Your task to perform on an android device: check battery use Image 0: 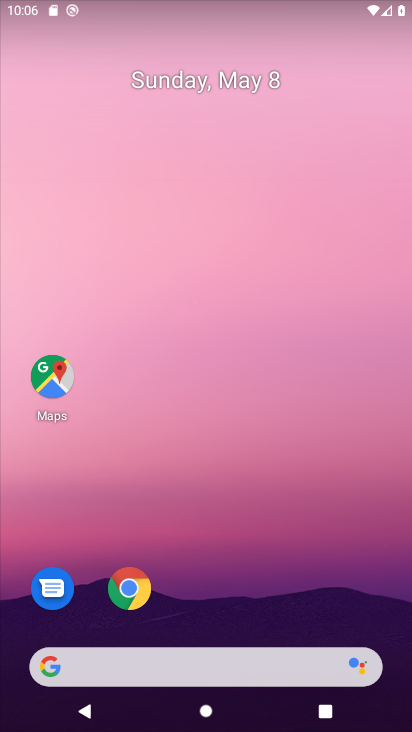
Step 0: drag from (186, 647) to (274, 349)
Your task to perform on an android device: check battery use Image 1: 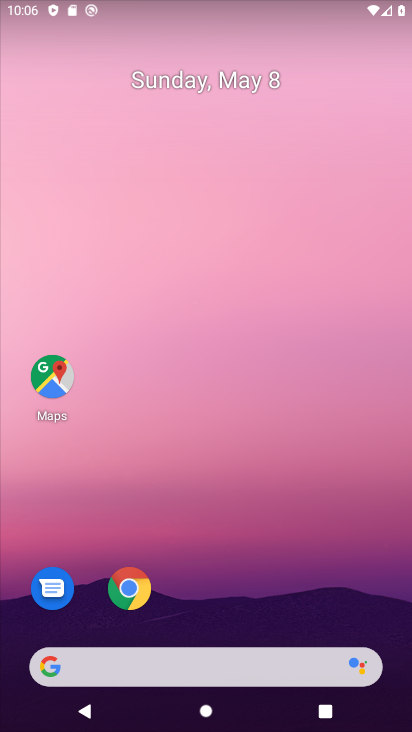
Step 1: drag from (217, 635) to (286, 275)
Your task to perform on an android device: check battery use Image 2: 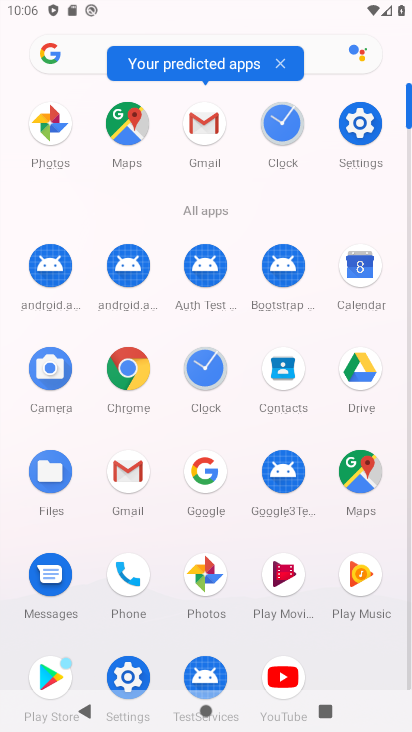
Step 2: click (124, 670)
Your task to perform on an android device: check battery use Image 3: 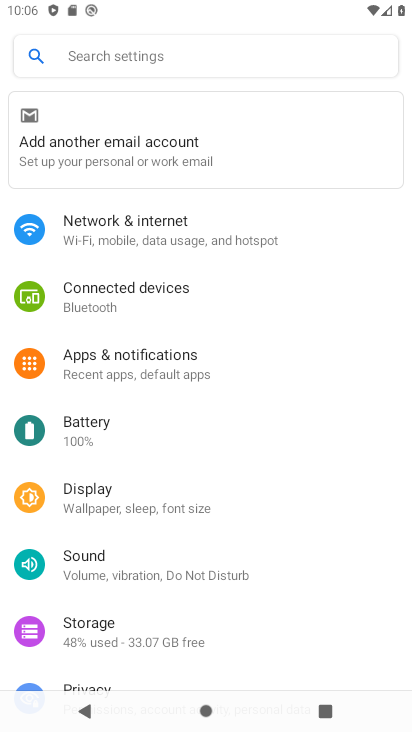
Step 3: click (204, 443)
Your task to perform on an android device: check battery use Image 4: 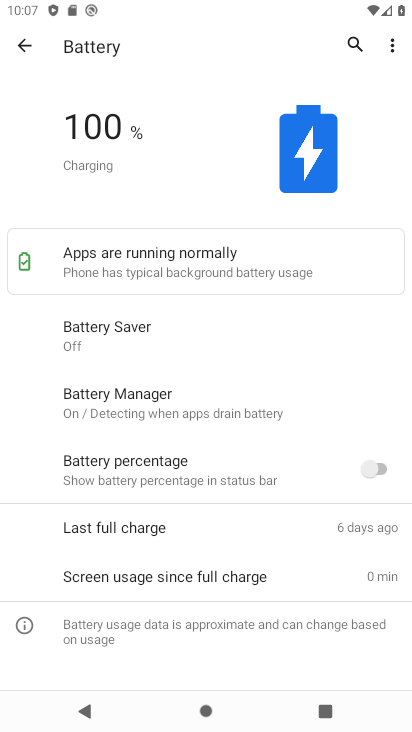
Step 4: click (391, 38)
Your task to perform on an android device: check battery use Image 5: 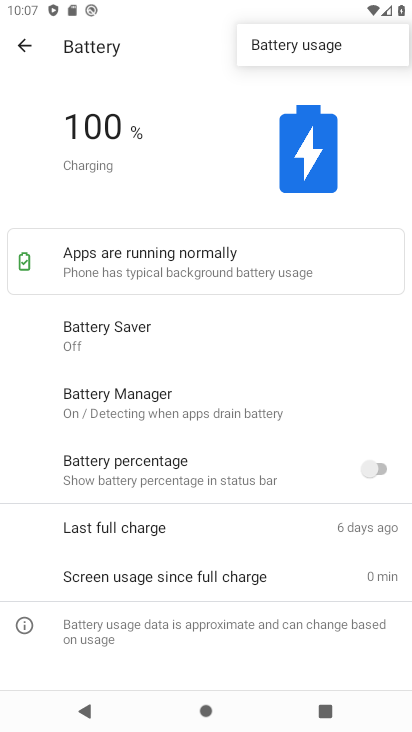
Step 5: click (390, 42)
Your task to perform on an android device: check battery use Image 6: 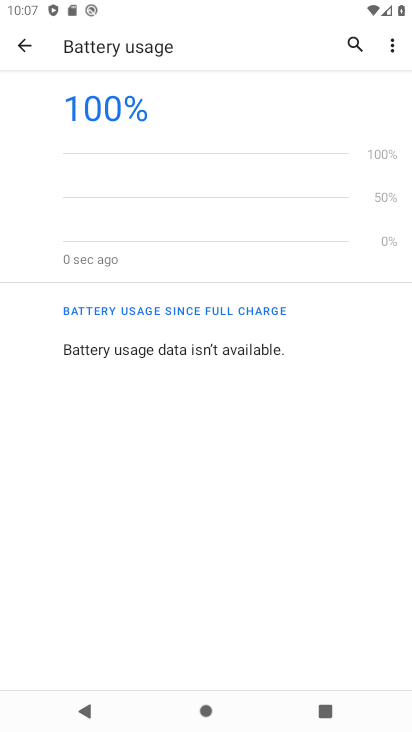
Step 6: task complete